Your task to perform on an android device: turn off picture-in-picture Image 0: 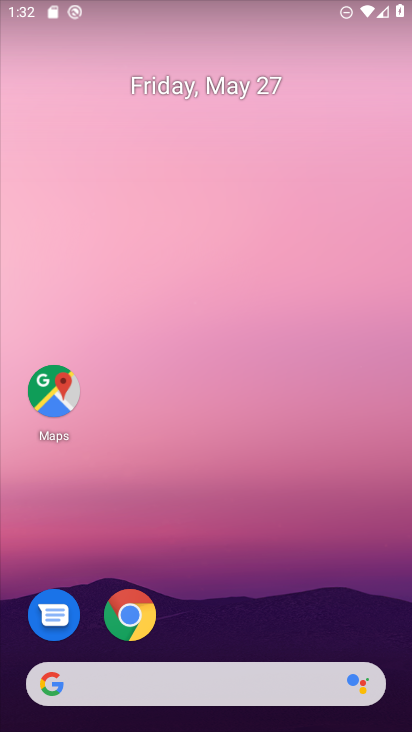
Step 0: drag from (212, 643) to (262, 133)
Your task to perform on an android device: turn off picture-in-picture Image 1: 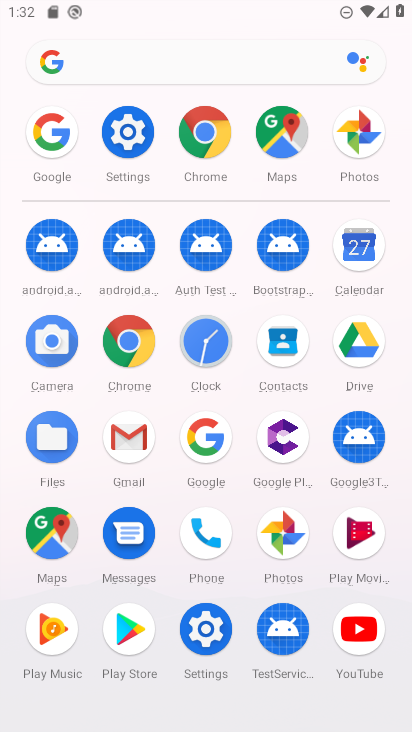
Step 1: drag from (241, 216) to (247, 47)
Your task to perform on an android device: turn off picture-in-picture Image 2: 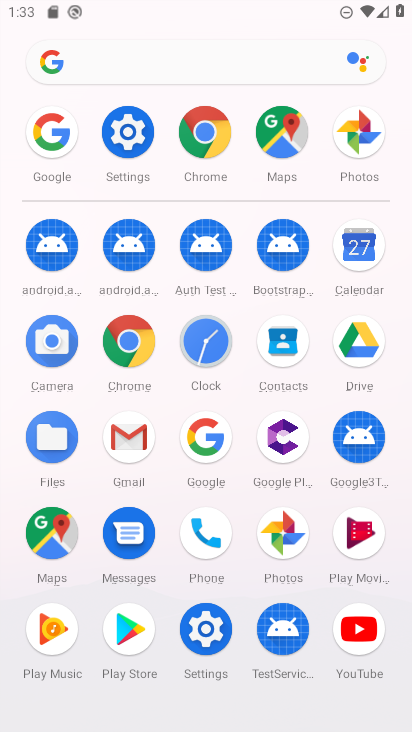
Step 2: click (207, 635)
Your task to perform on an android device: turn off picture-in-picture Image 3: 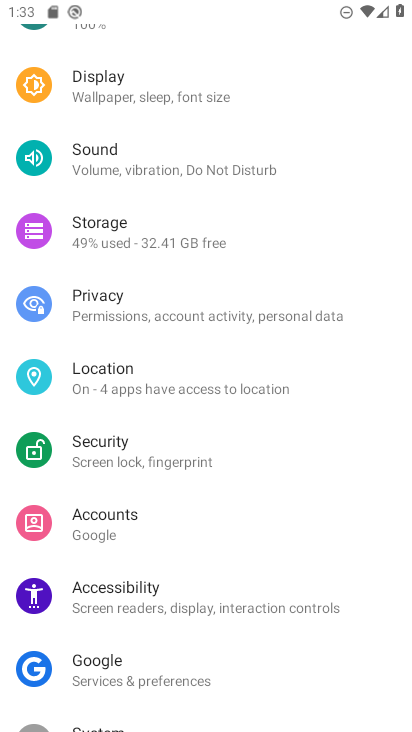
Step 3: drag from (179, 137) to (224, 542)
Your task to perform on an android device: turn off picture-in-picture Image 4: 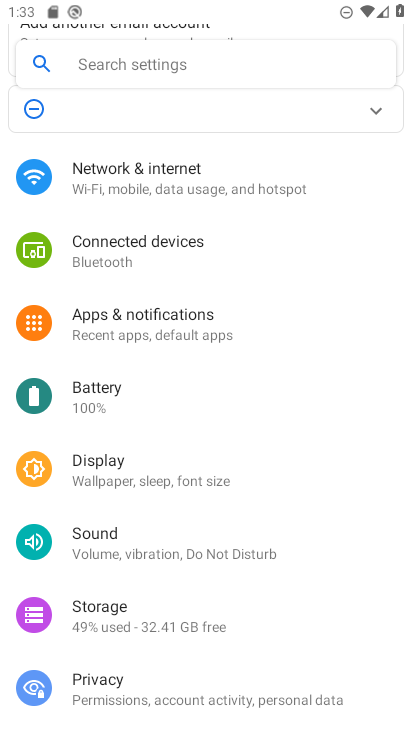
Step 4: click (198, 350)
Your task to perform on an android device: turn off picture-in-picture Image 5: 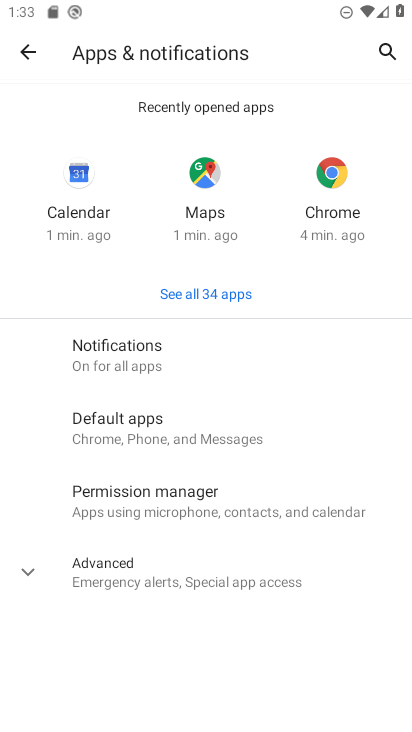
Step 5: click (166, 576)
Your task to perform on an android device: turn off picture-in-picture Image 6: 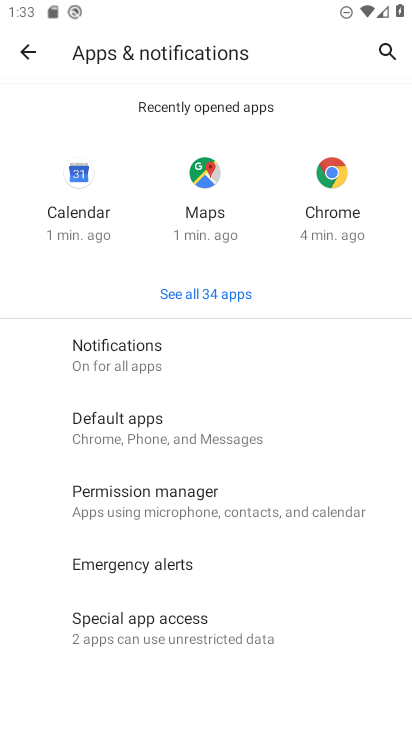
Step 6: click (160, 633)
Your task to perform on an android device: turn off picture-in-picture Image 7: 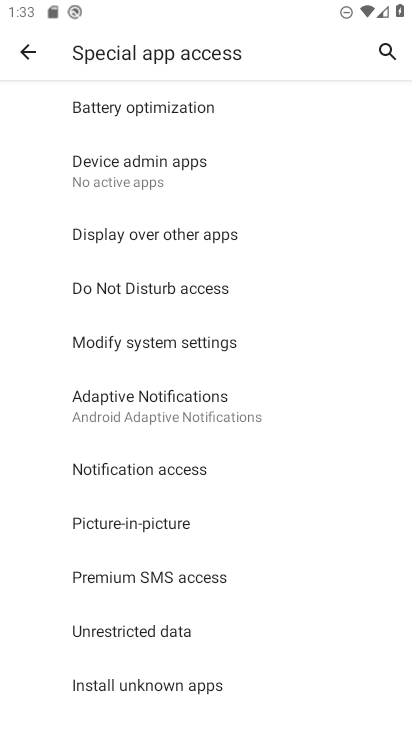
Step 7: click (186, 529)
Your task to perform on an android device: turn off picture-in-picture Image 8: 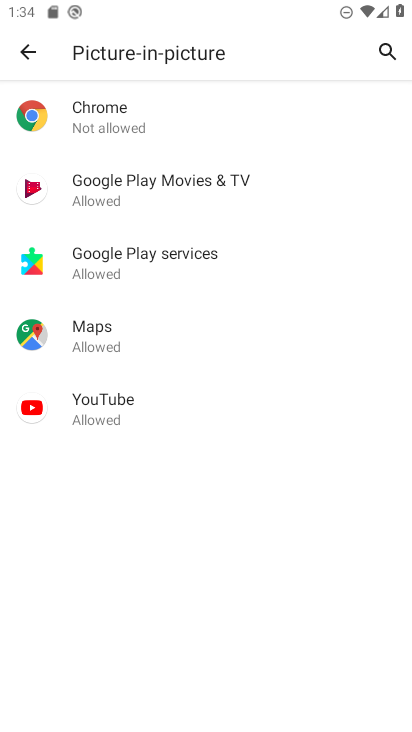
Step 8: click (231, 202)
Your task to perform on an android device: turn off picture-in-picture Image 9: 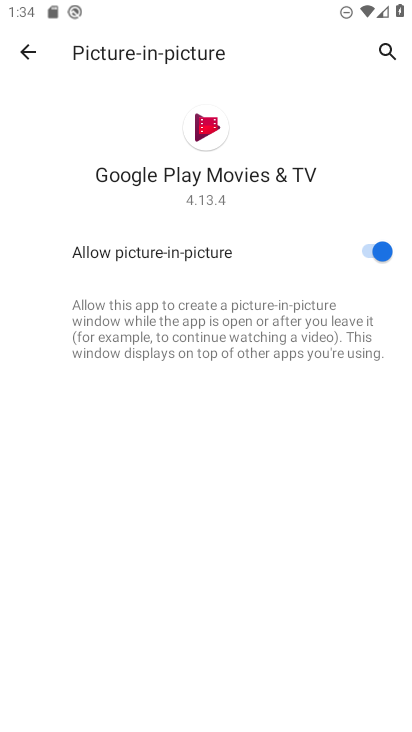
Step 9: click (362, 259)
Your task to perform on an android device: turn off picture-in-picture Image 10: 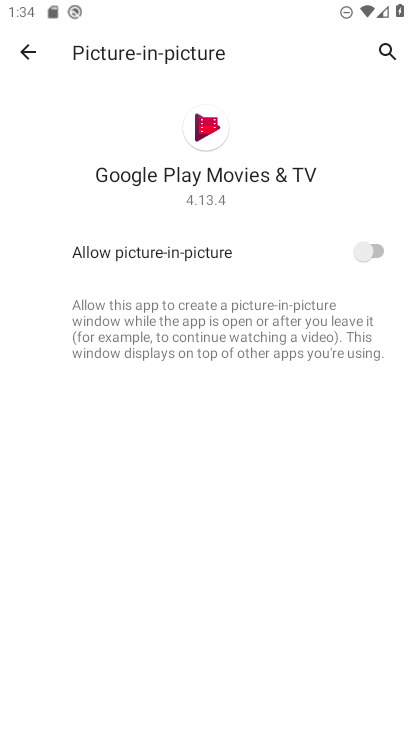
Step 10: task complete